Your task to perform on an android device: empty trash in google photos Image 0: 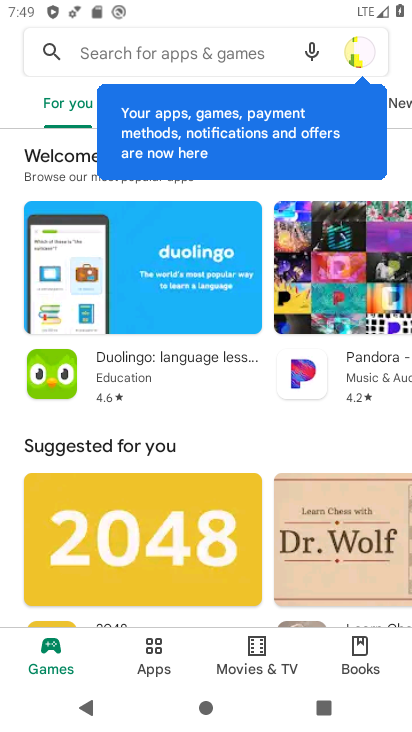
Step 0: press home button
Your task to perform on an android device: empty trash in google photos Image 1: 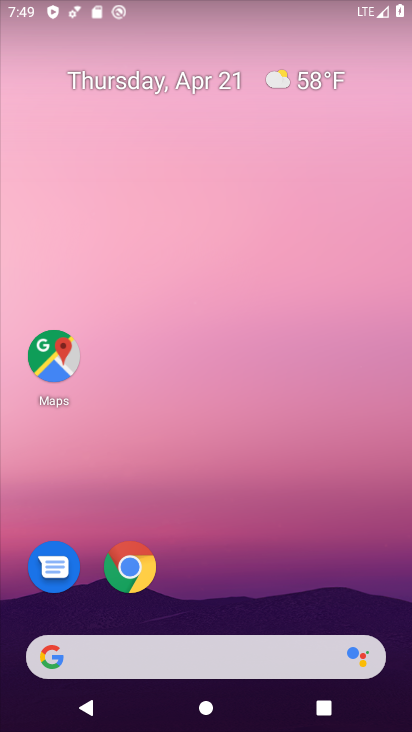
Step 1: drag from (215, 589) to (256, 41)
Your task to perform on an android device: empty trash in google photos Image 2: 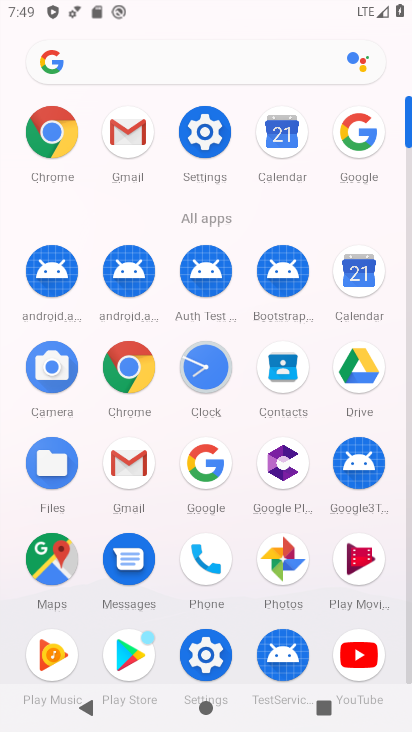
Step 2: click (285, 556)
Your task to perform on an android device: empty trash in google photos Image 3: 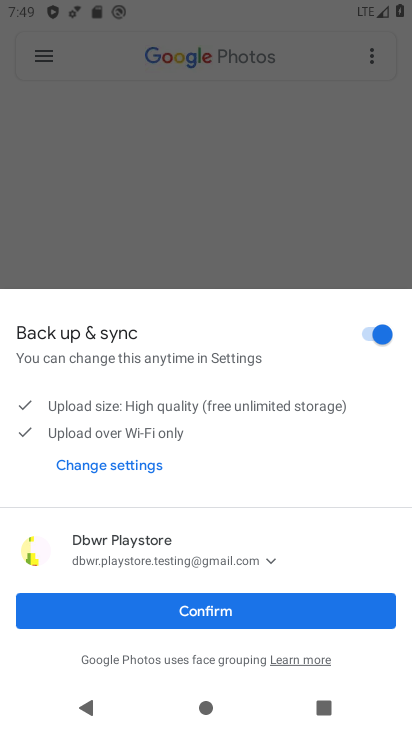
Step 3: click (227, 619)
Your task to perform on an android device: empty trash in google photos Image 4: 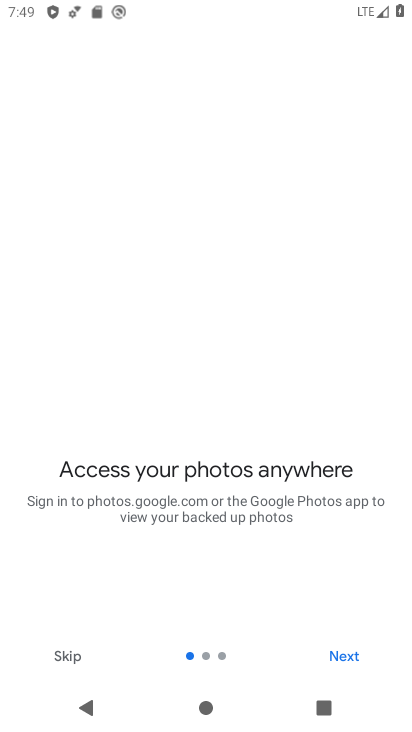
Step 4: click (75, 654)
Your task to perform on an android device: empty trash in google photos Image 5: 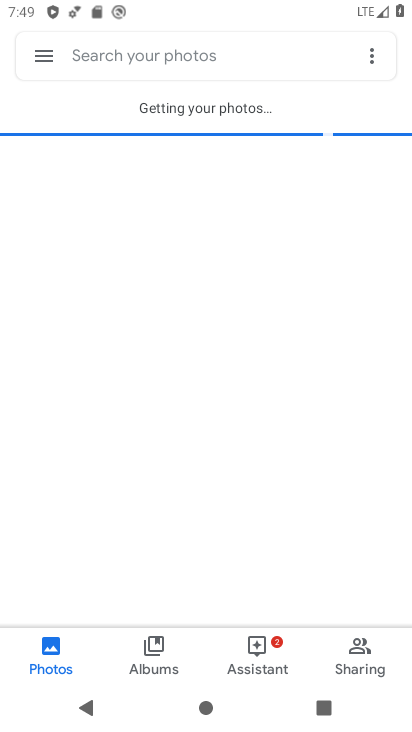
Step 5: click (50, 59)
Your task to perform on an android device: empty trash in google photos Image 6: 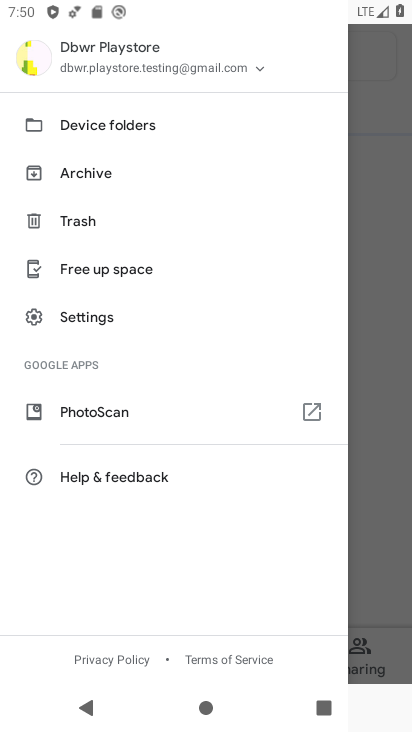
Step 6: click (96, 218)
Your task to perform on an android device: empty trash in google photos Image 7: 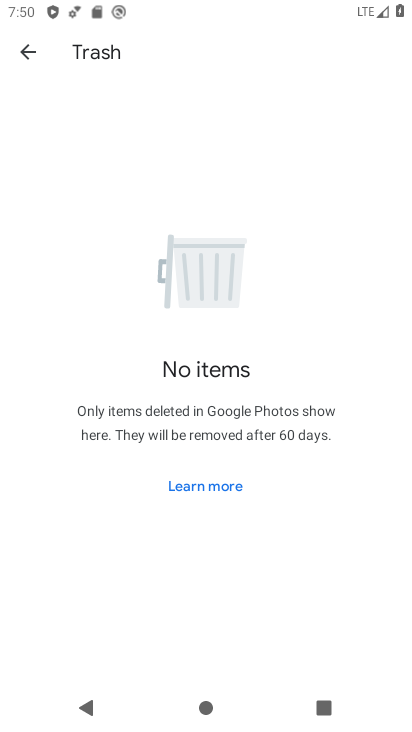
Step 7: task complete